Your task to perform on an android device: change the clock display to show seconds Image 0: 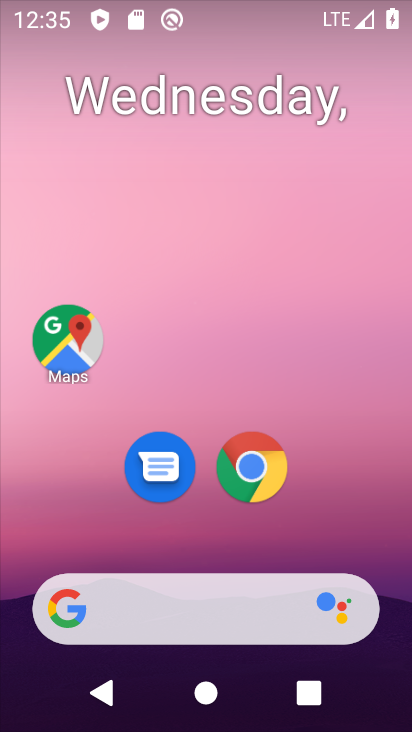
Step 0: drag from (375, 539) to (392, 121)
Your task to perform on an android device: change the clock display to show seconds Image 1: 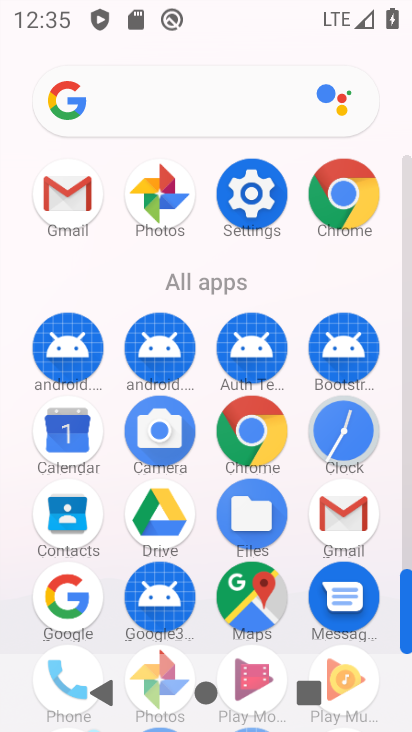
Step 1: click (355, 426)
Your task to perform on an android device: change the clock display to show seconds Image 2: 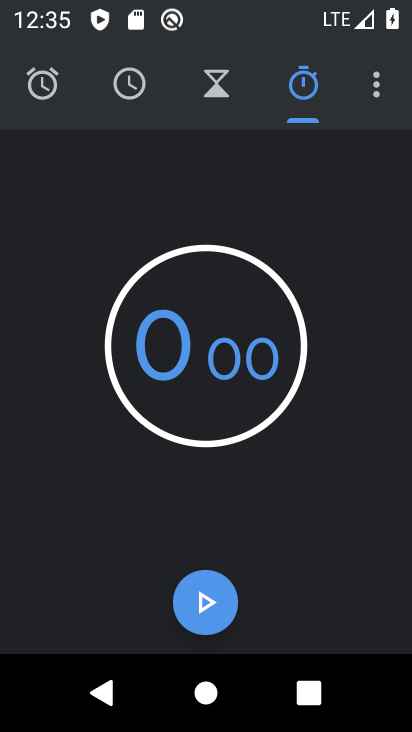
Step 2: click (378, 106)
Your task to perform on an android device: change the clock display to show seconds Image 3: 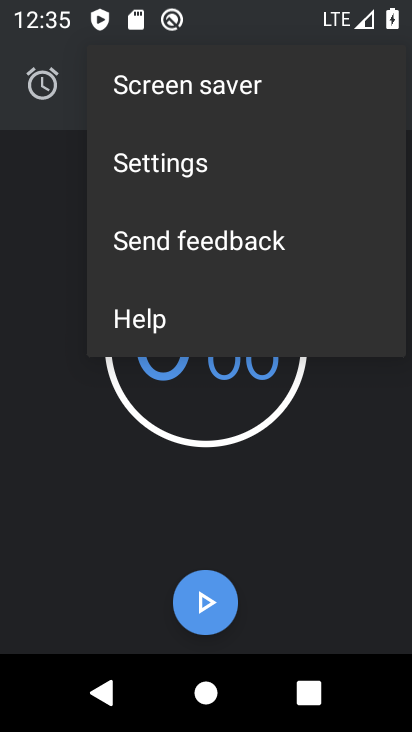
Step 3: click (216, 177)
Your task to perform on an android device: change the clock display to show seconds Image 4: 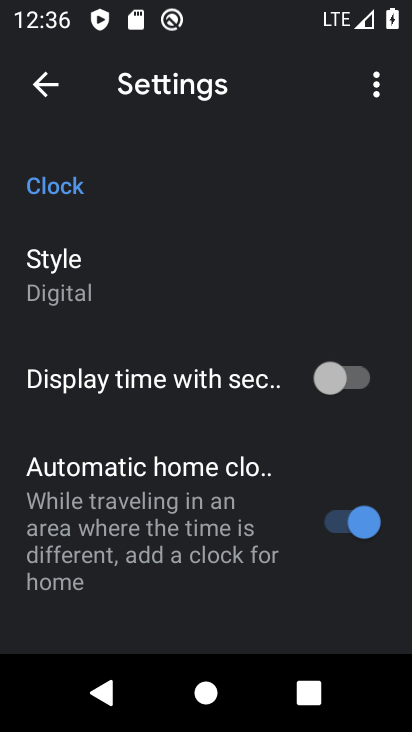
Step 4: click (314, 383)
Your task to perform on an android device: change the clock display to show seconds Image 5: 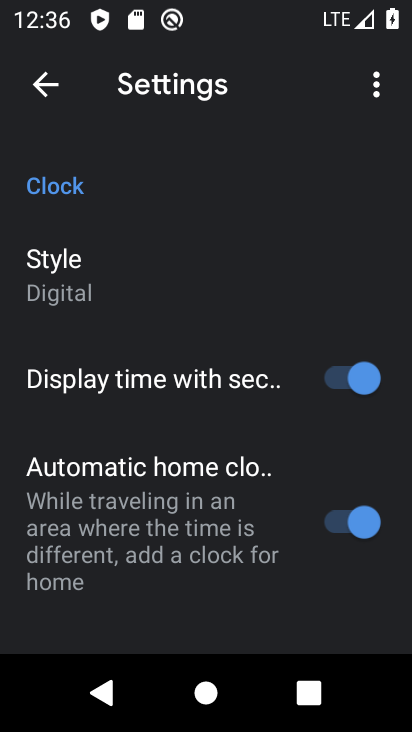
Step 5: task complete